Your task to perform on an android device: Open battery settings Image 0: 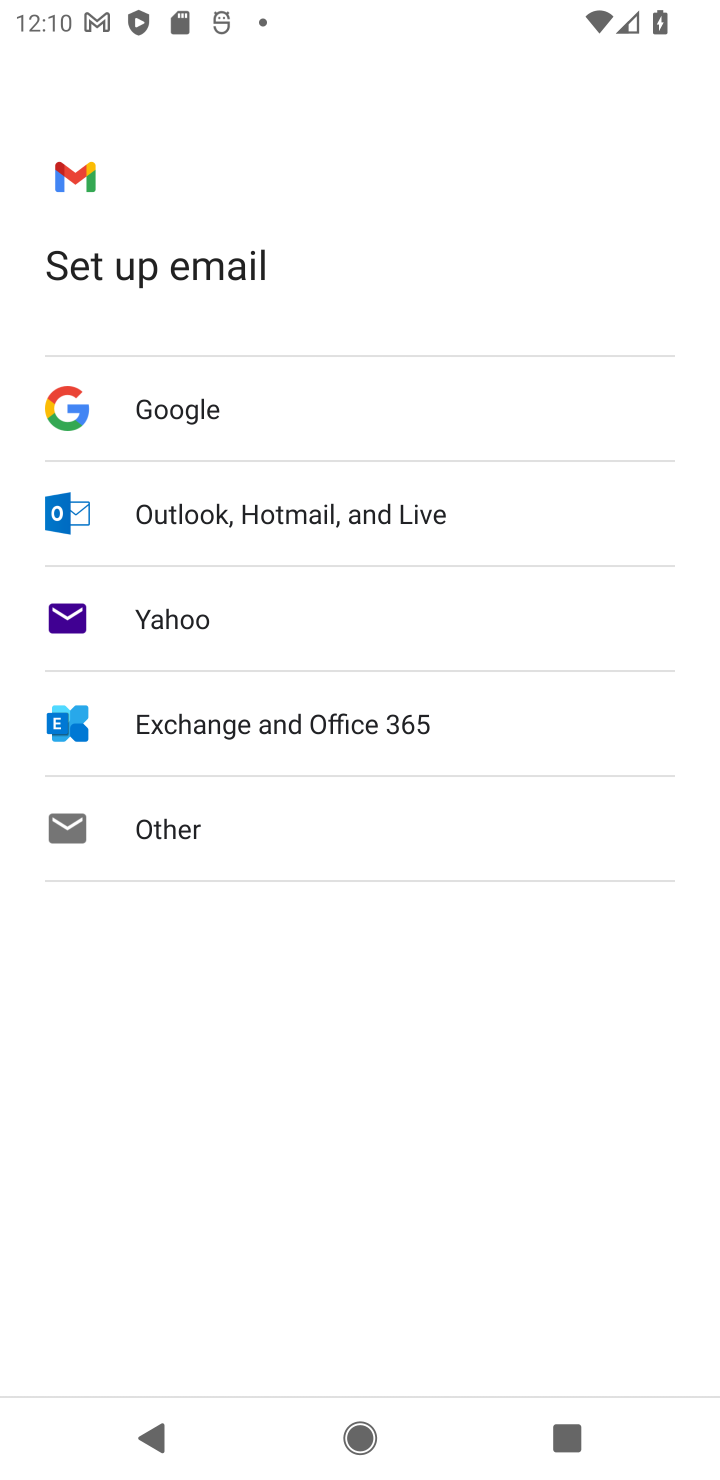
Step 0: press home button
Your task to perform on an android device: Open battery settings Image 1: 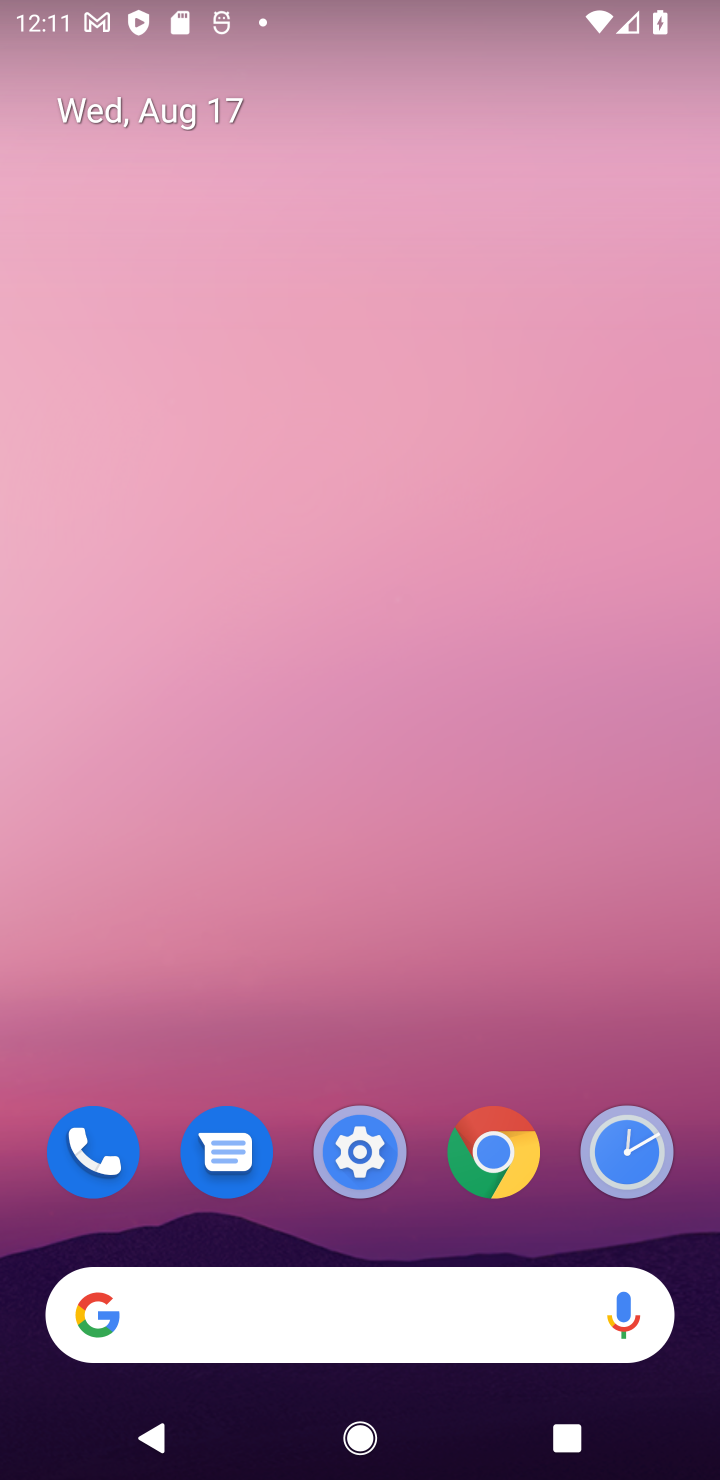
Step 1: drag from (586, 1217) to (217, 71)
Your task to perform on an android device: Open battery settings Image 2: 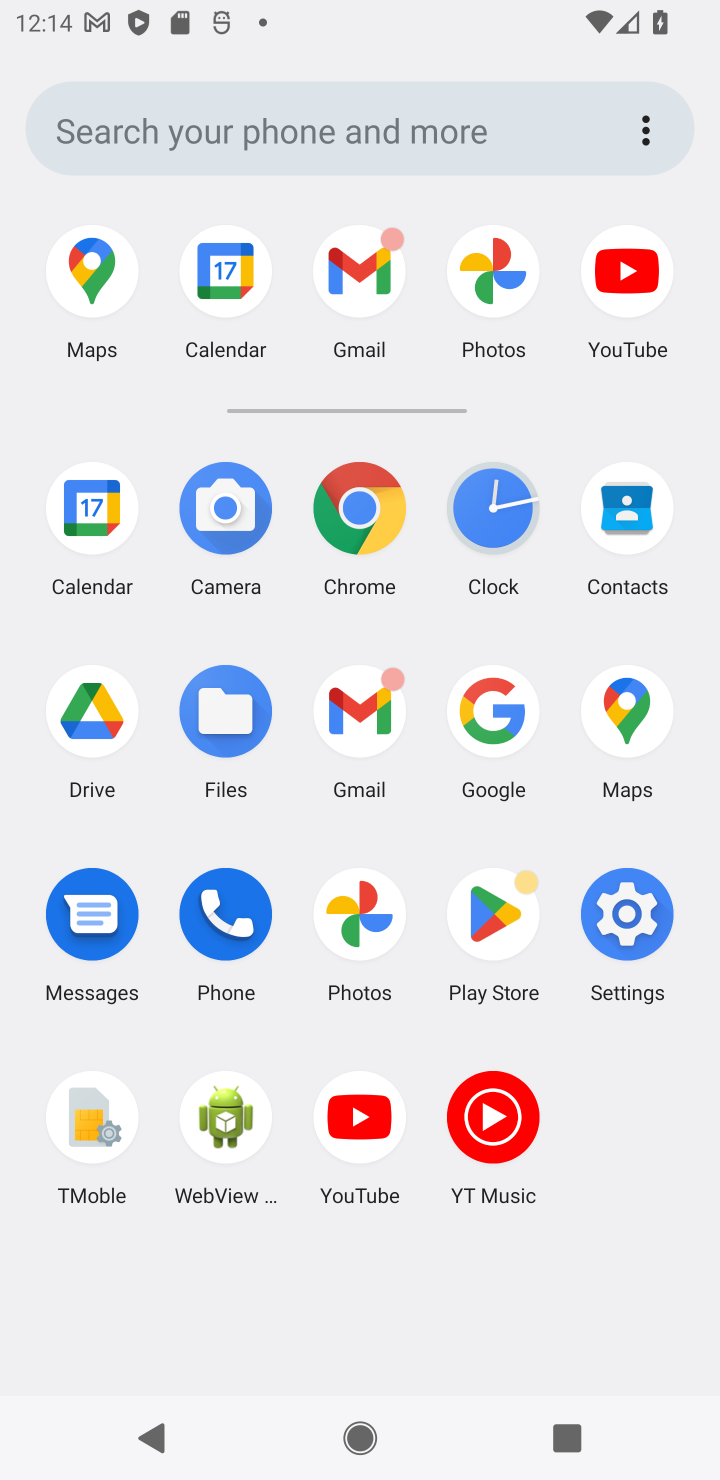
Step 2: click (603, 928)
Your task to perform on an android device: Open battery settings Image 3: 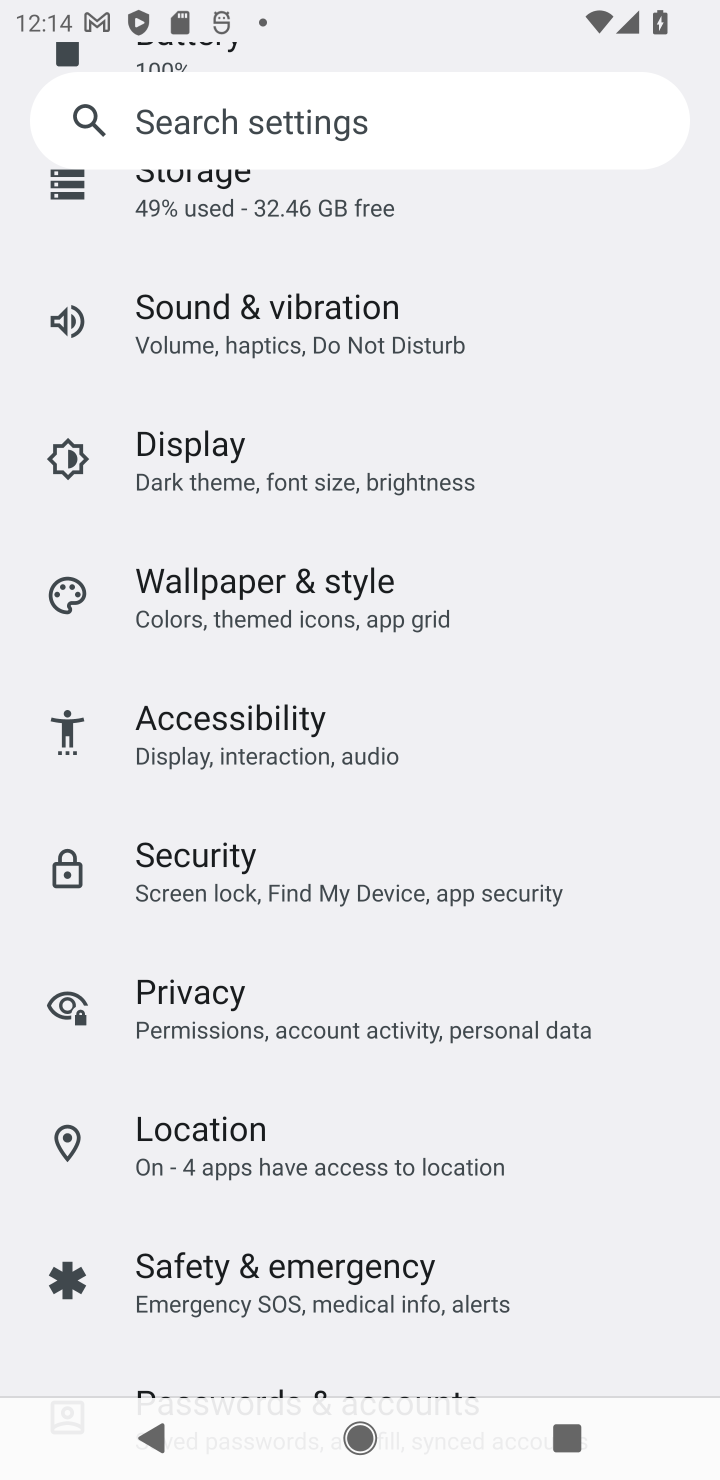
Step 3: drag from (256, 328) to (288, 1316)
Your task to perform on an android device: Open battery settings Image 4: 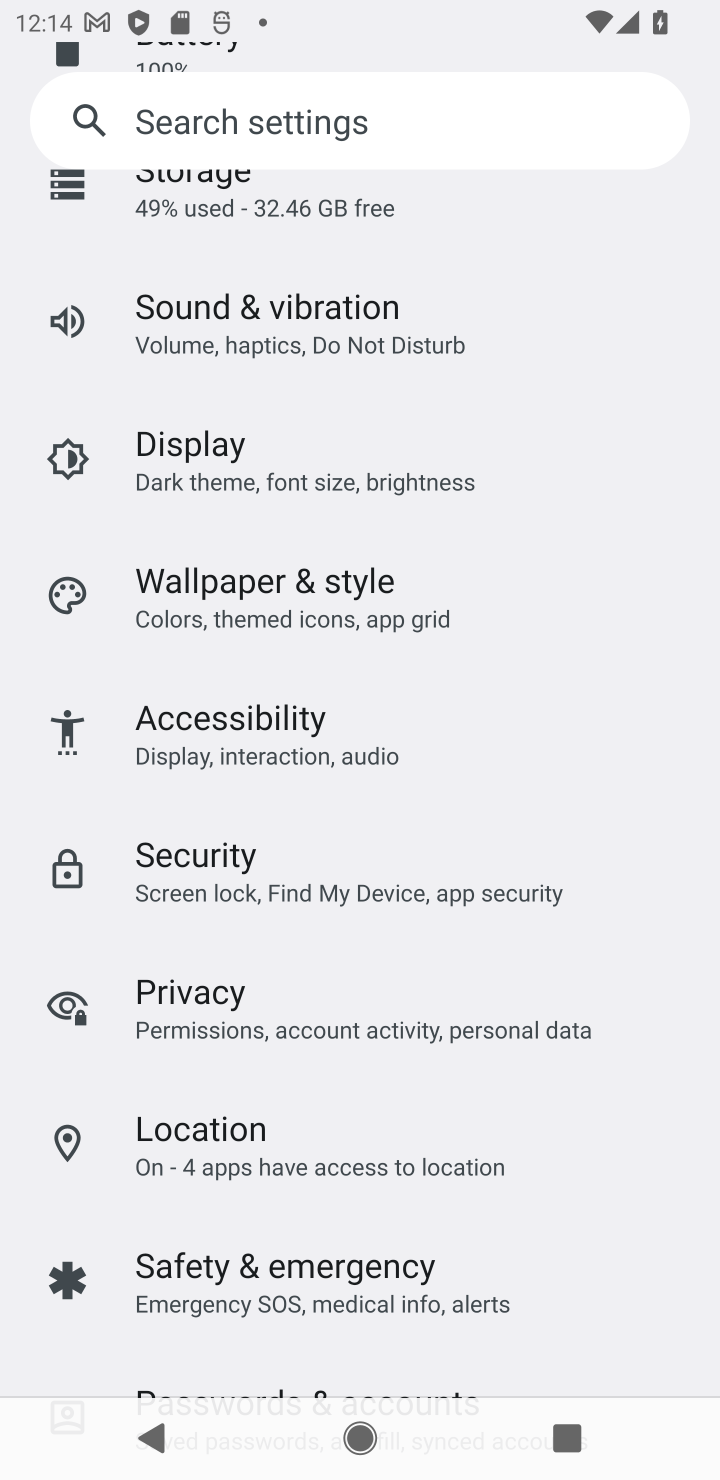
Step 4: drag from (197, 637) to (182, 1234)
Your task to perform on an android device: Open battery settings Image 5: 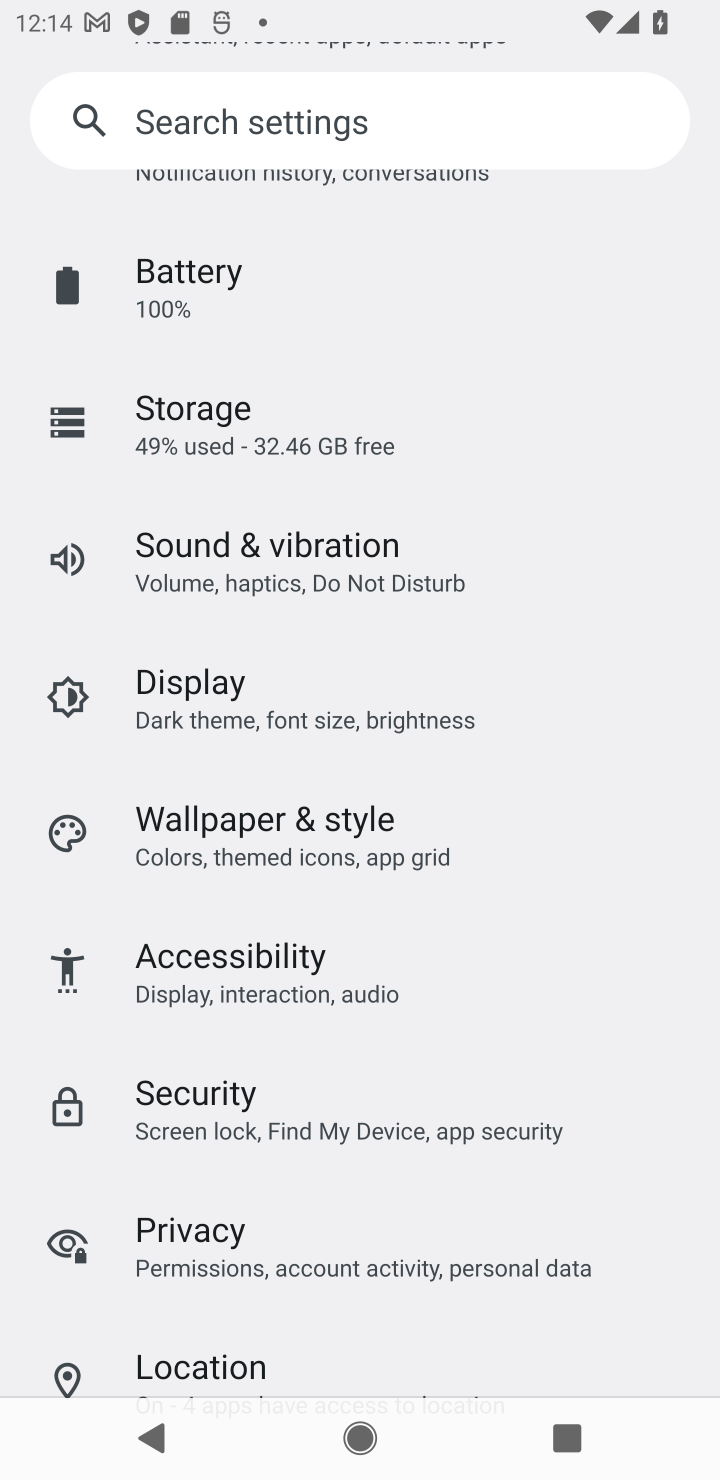
Step 5: click (220, 288)
Your task to perform on an android device: Open battery settings Image 6: 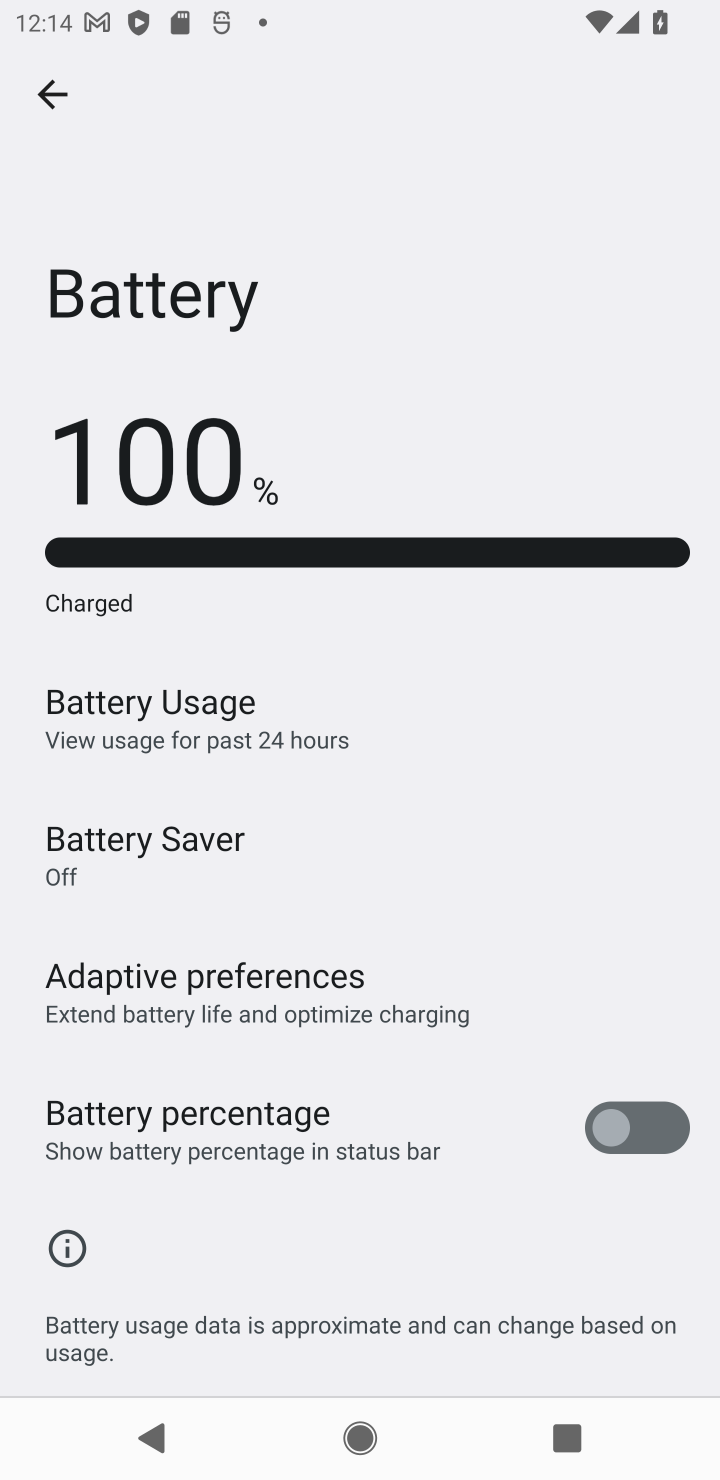
Step 6: task complete